Your task to perform on an android device: Open wifi settings Image 0: 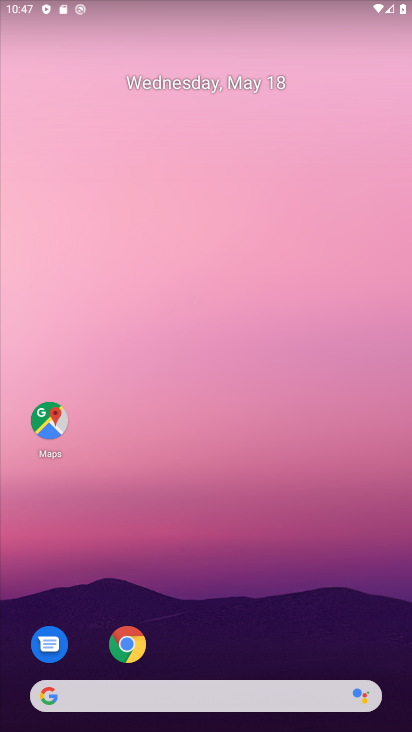
Step 0: drag from (345, 647) to (246, 64)
Your task to perform on an android device: Open wifi settings Image 1: 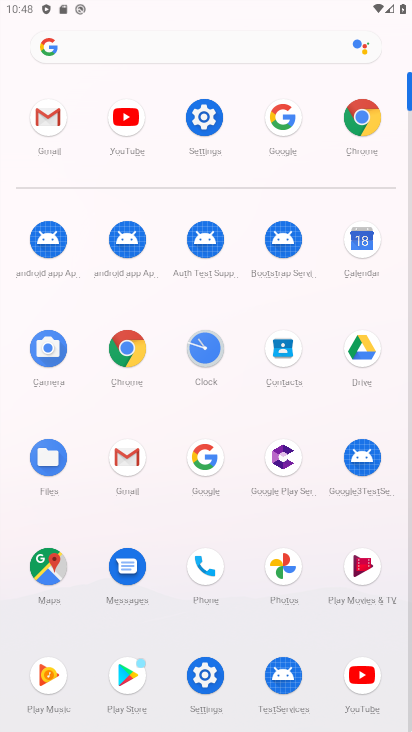
Step 1: click (207, 686)
Your task to perform on an android device: Open wifi settings Image 2: 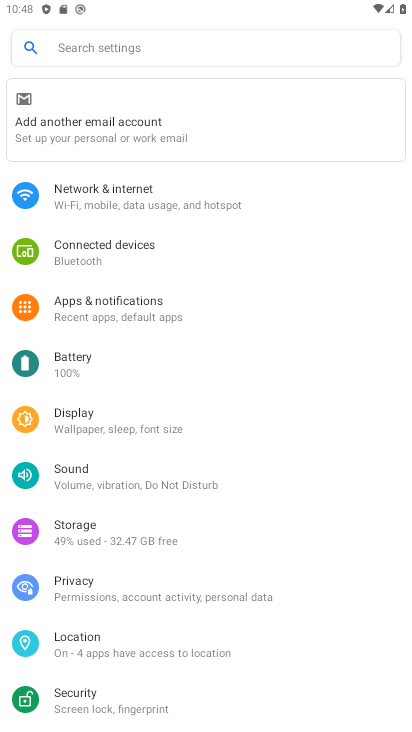
Step 2: click (108, 180)
Your task to perform on an android device: Open wifi settings Image 3: 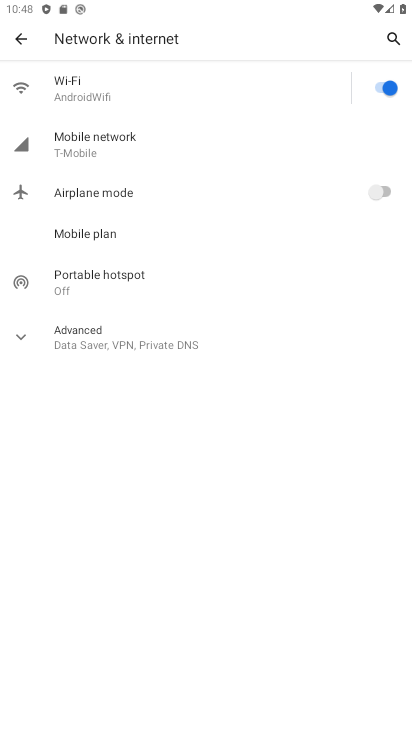
Step 3: click (159, 87)
Your task to perform on an android device: Open wifi settings Image 4: 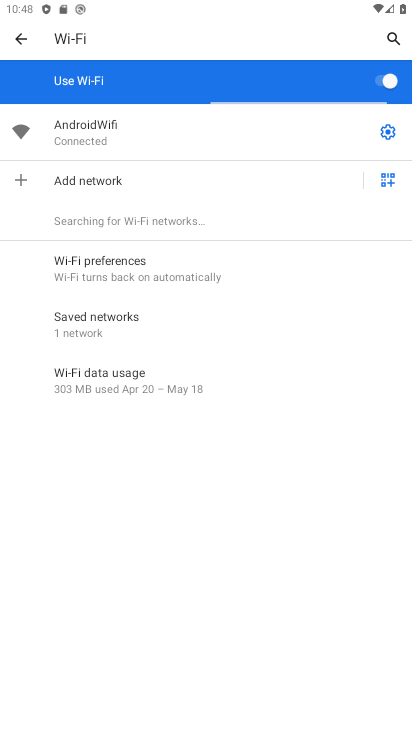
Step 4: task complete